Your task to perform on an android device: all mails in gmail Image 0: 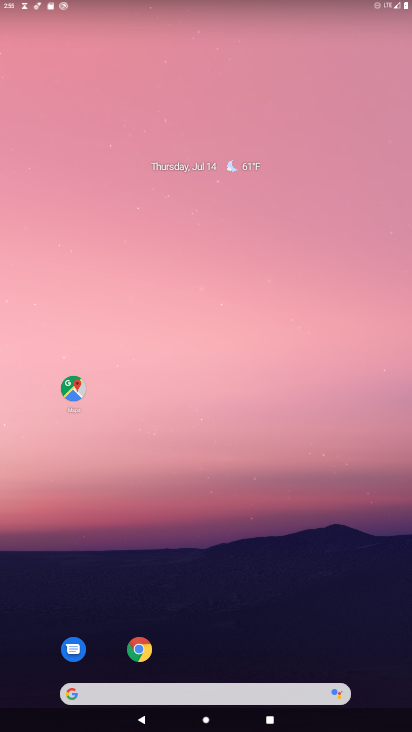
Step 0: drag from (163, 677) to (281, 12)
Your task to perform on an android device: all mails in gmail Image 1: 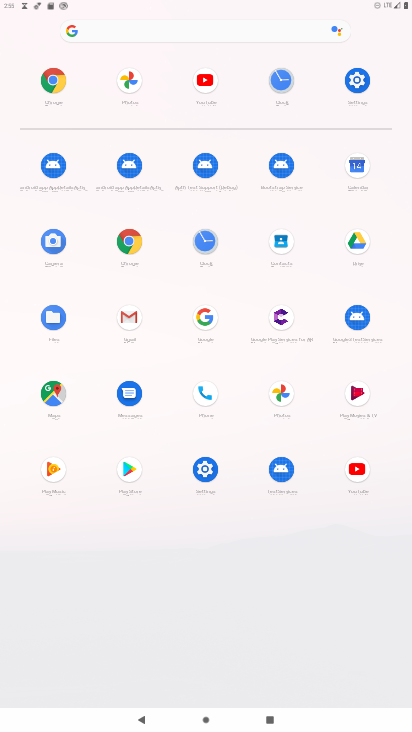
Step 1: click (136, 313)
Your task to perform on an android device: all mails in gmail Image 2: 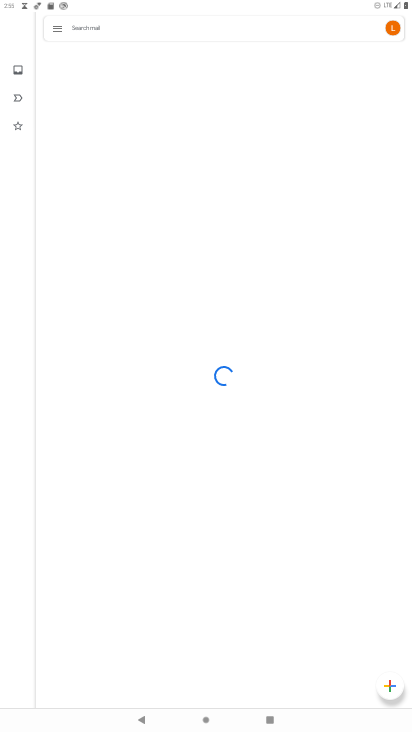
Step 2: click (54, 27)
Your task to perform on an android device: all mails in gmail Image 3: 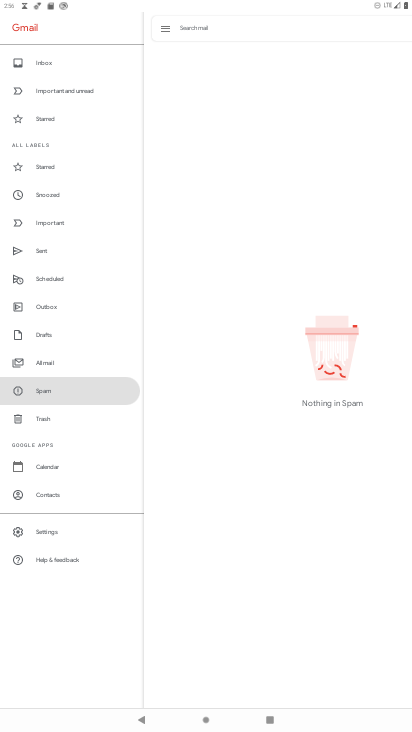
Step 3: click (57, 367)
Your task to perform on an android device: all mails in gmail Image 4: 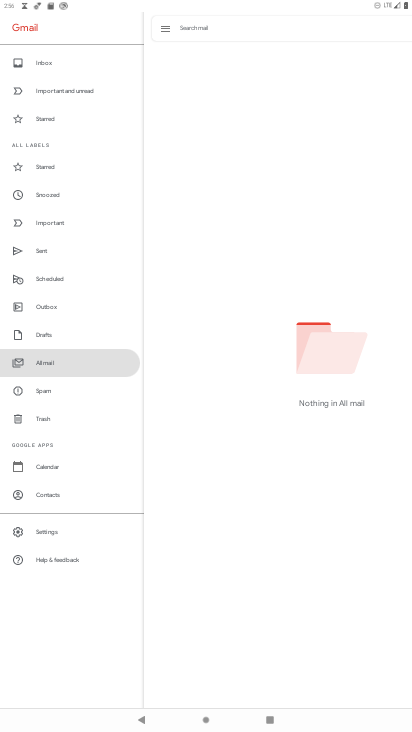
Step 4: task complete